Your task to perform on an android device: Find coffee shops on Maps Image 0: 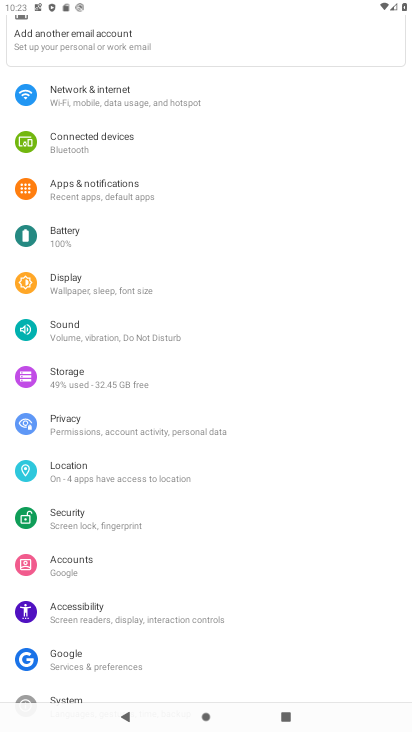
Step 0: press home button
Your task to perform on an android device: Find coffee shops on Maps Image 1: 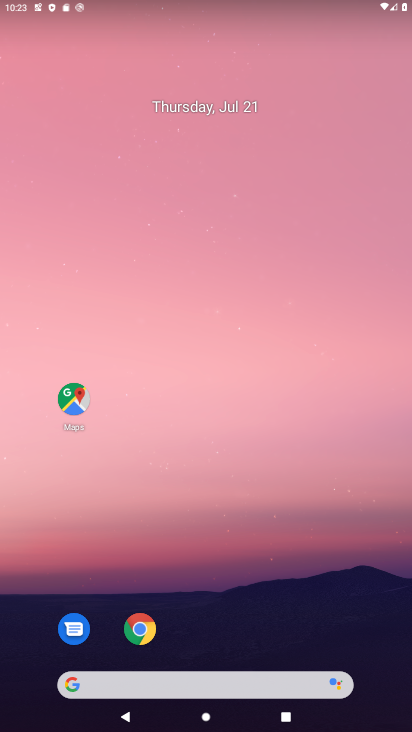
Step 1: click (85, 414)
Your task to perform on an android device: Find coffee shops on Maps Image 2: 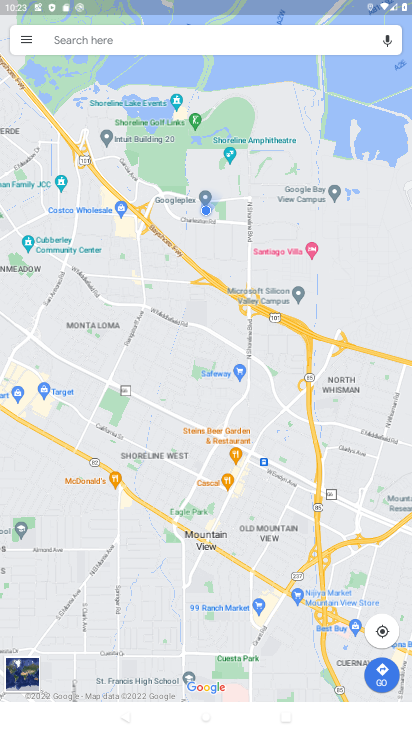
Step 2: click (193, 44)
Your task to perform on an android device: Find coffee shops on Maps Image 3: 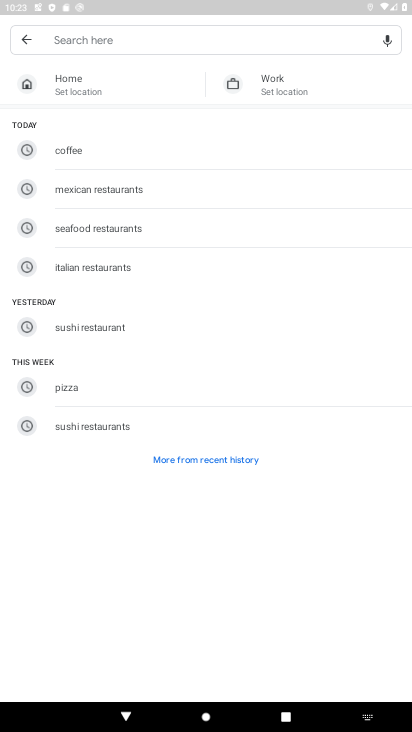
Step 3: click (83, 143)
Your task to perform on an android device: Find coffee shops on Maps Image 4: 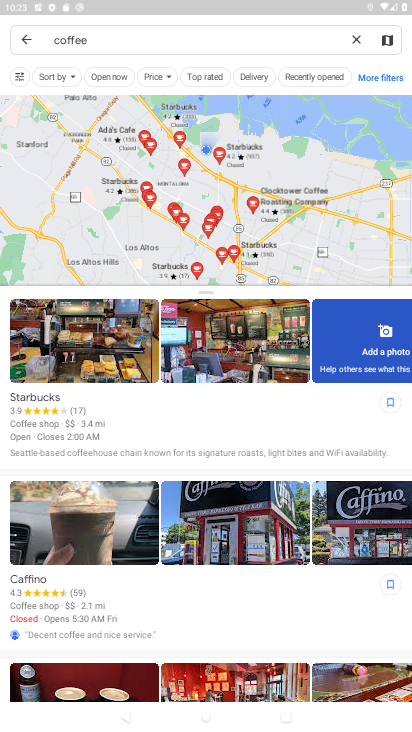
Step 4: task complete